Your task to perform on an android device: Open accessibility settings Image 0: 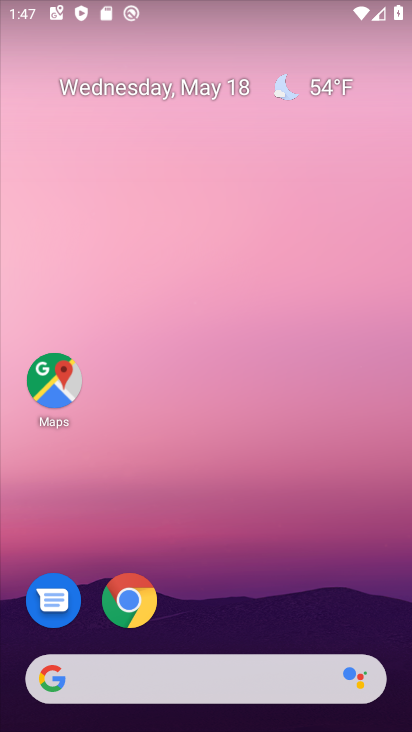
Step 0: drag from (177, 639) to (175, 164)
Your task to perform on an android device: Open accessibility settings Image 1: 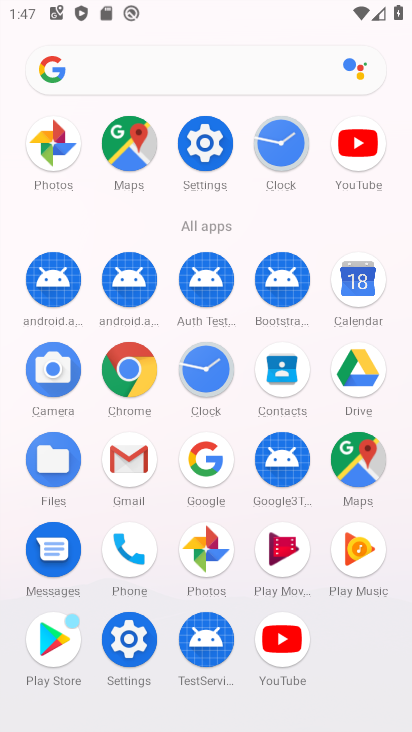
Step 1: click (219, 136)
Your task to perform on an android device: Open accessibility settings Image 2: 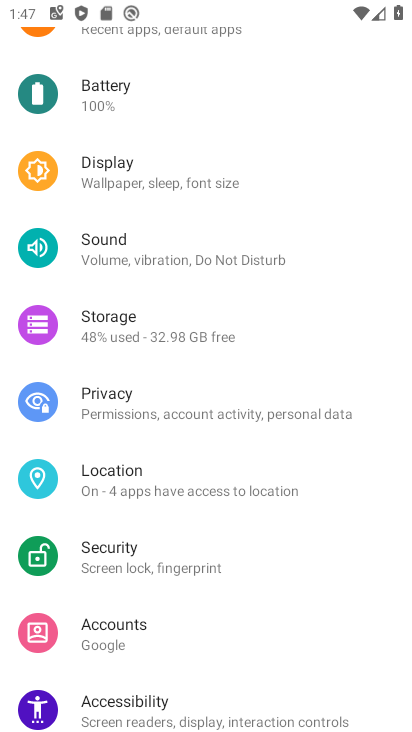
Step 2: drag from (126, 647) to (157, 276)
Your task to perform on an android device: Open accessibility settings Image 3: 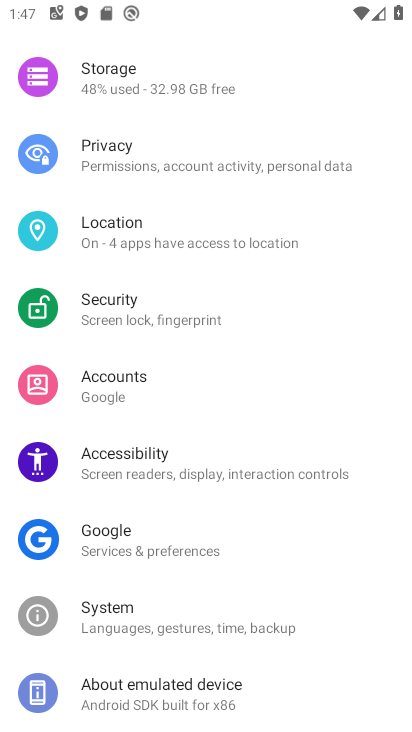
Step 3: click (115, 464)
Your task to perform on an android device: Open accessibility settings Image 4: 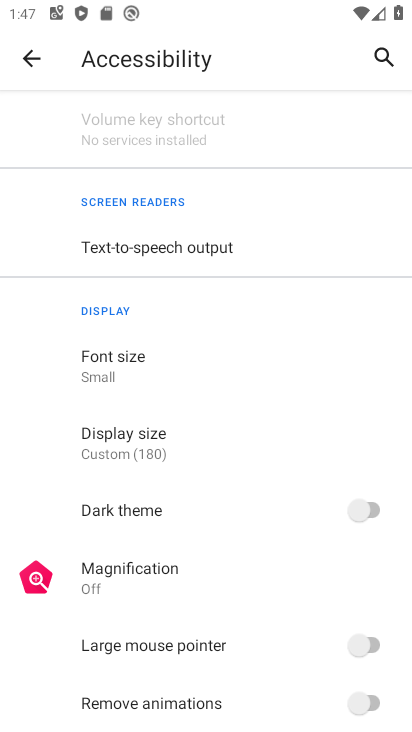
Step 4: task complete